Your task to perform on an android device: Go to Reddit.com Image 0: 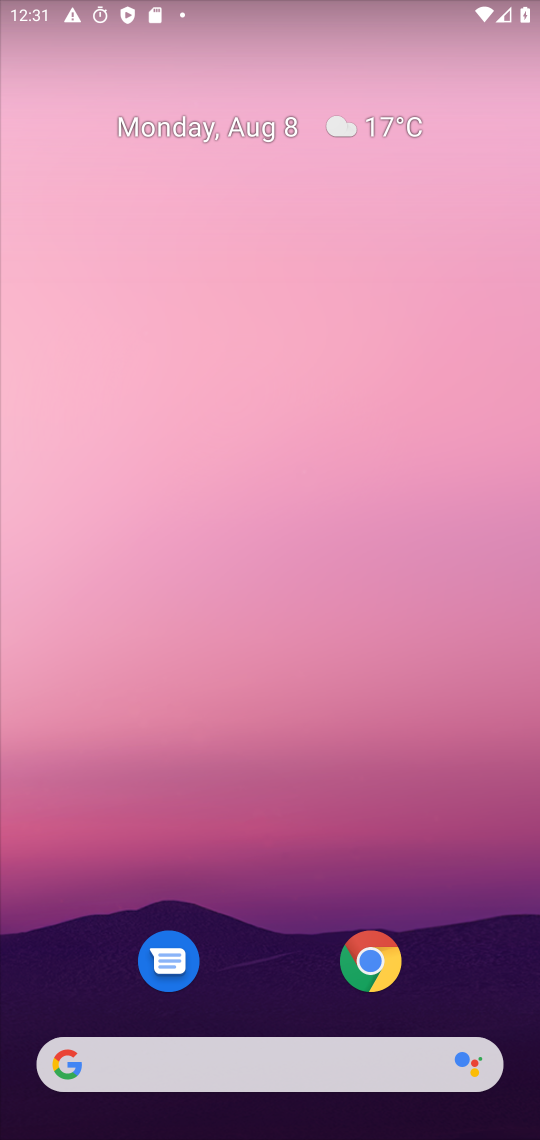
Step 0: drag from (273, 1072) to (273, 123)
Your task to perform on an android device: Go to Reddit.com Image 1: 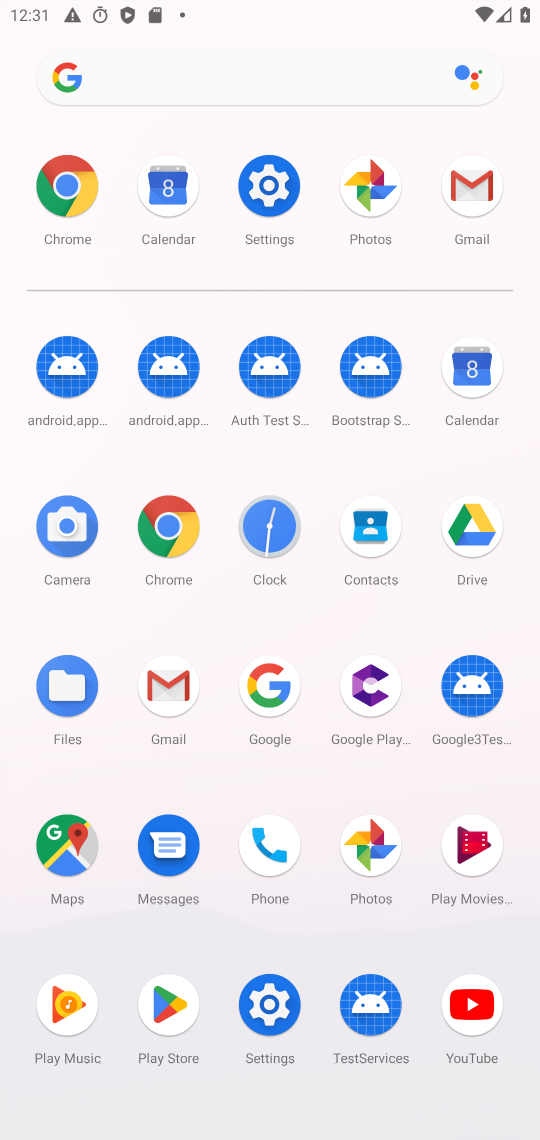
Step 1: click (181, 526)
Your task to perform on an android device: Go to Reddit.com Image 2: 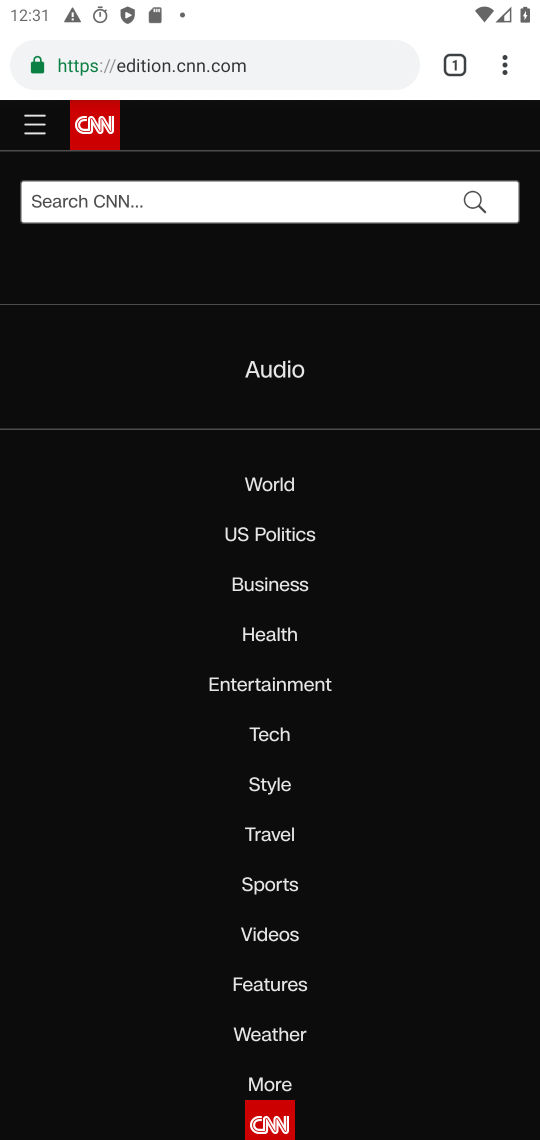
Step 2: click (270, 69)
Your task to perform on an android device: Go to Reddit.com Image 3: 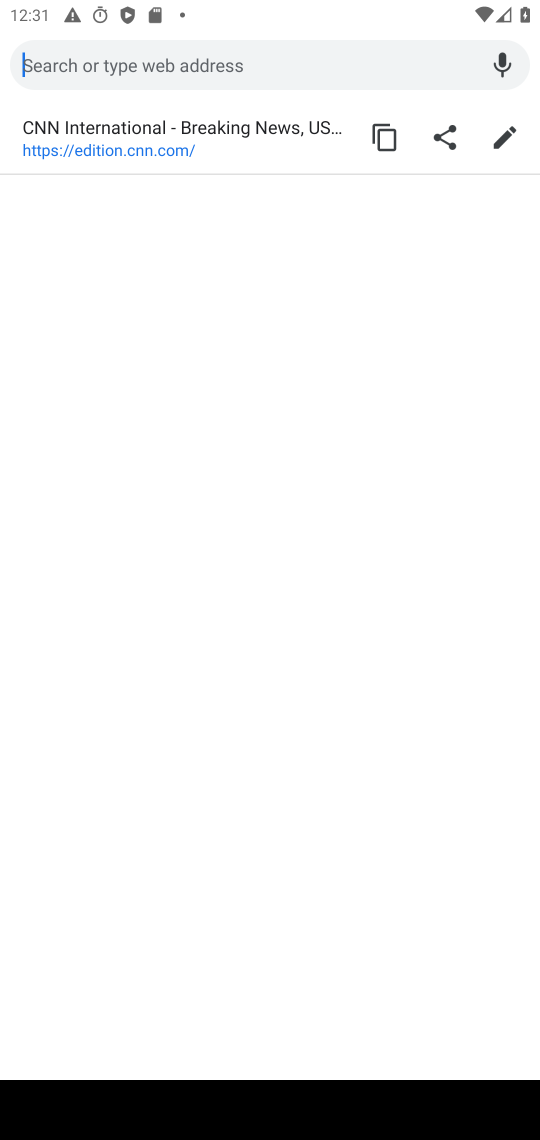
Step 3: type "reddit.com"
Your task to perform on an android device: Go to Reddit.com Image 4: 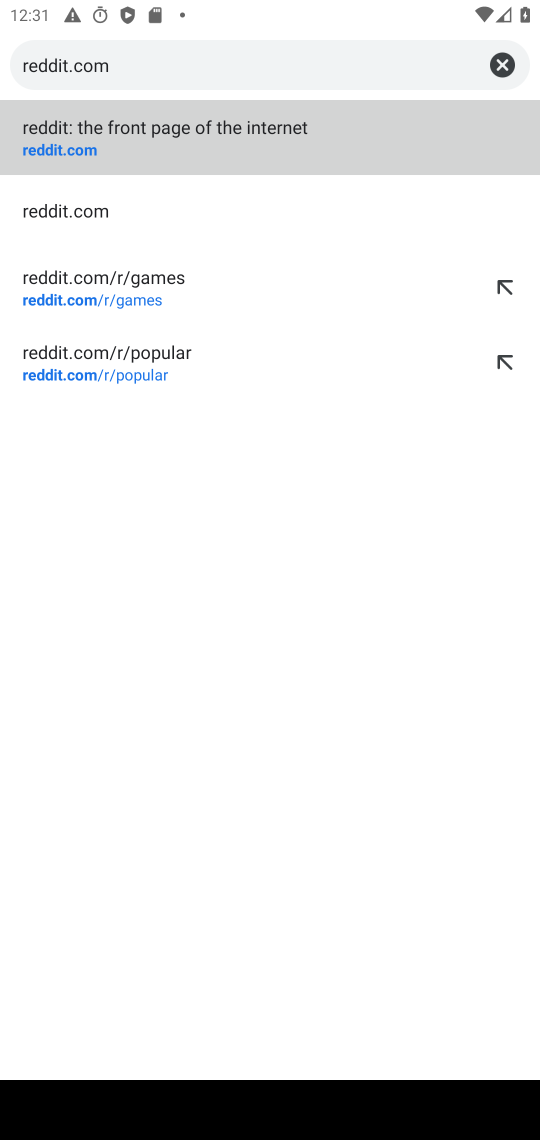
Step 4: click (175, 126)
Your task to perform on an android device: Go to Reddit.com Image 5: 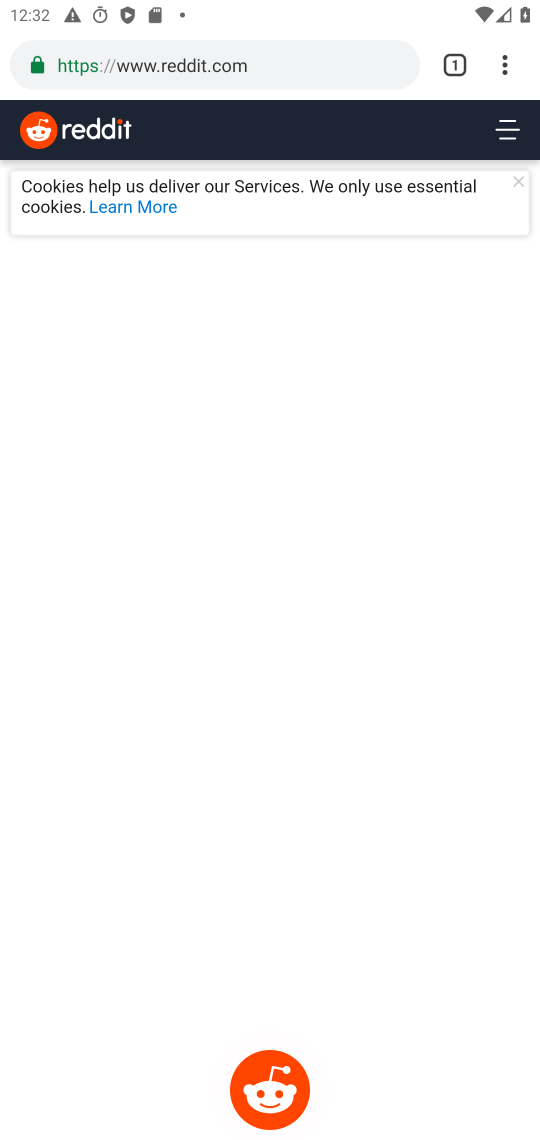
Step 5: task complete